Your task to perform on an android device: open chrome and create a bookmark for the current page Image 0: 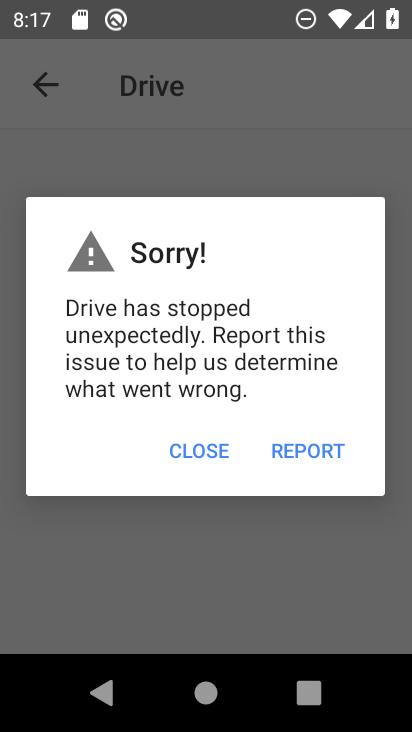
Step 0: press back button
Your task to perform on an android device: open chrome and create a bookmark for the current page Image 1: 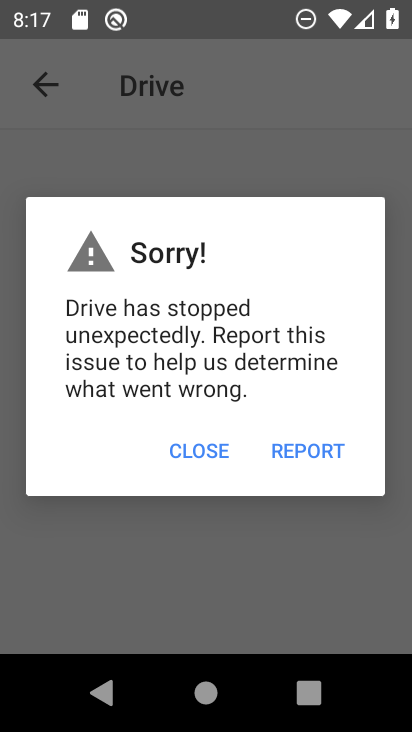
Step 1: press home button
Your task to perform on an android device: open chrome and create a bookmark for the current page Image 2: 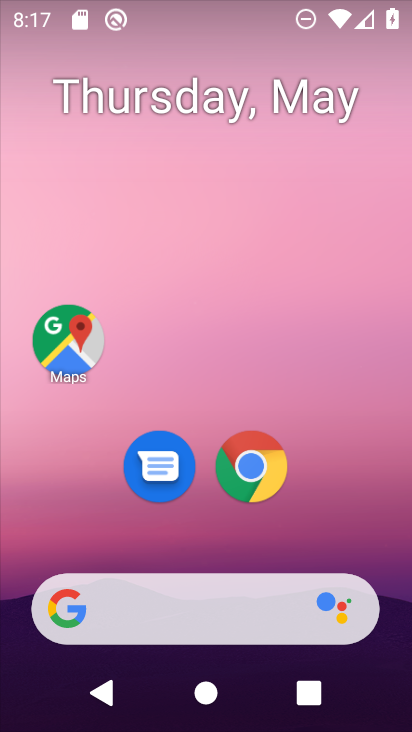
Step 2: click (239, 457)
Your task to perform on an android device: open chrome and create a bookmark for the current page Image 3: 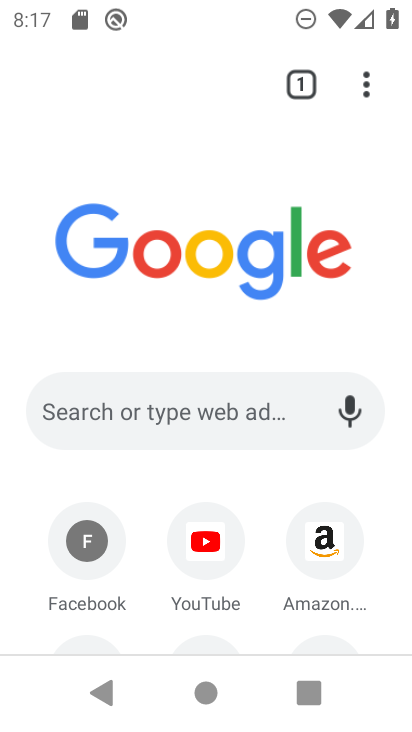
Step 3: click (366, 100)
Your task to perform on an android device: open chrome and create a bookmark for the current page Image 4: 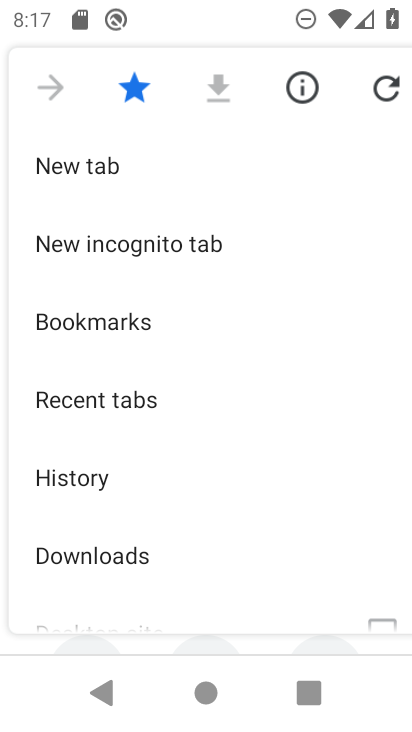
Step 4: task complete